Your task to perform on an android device: See recent photos Image 0: 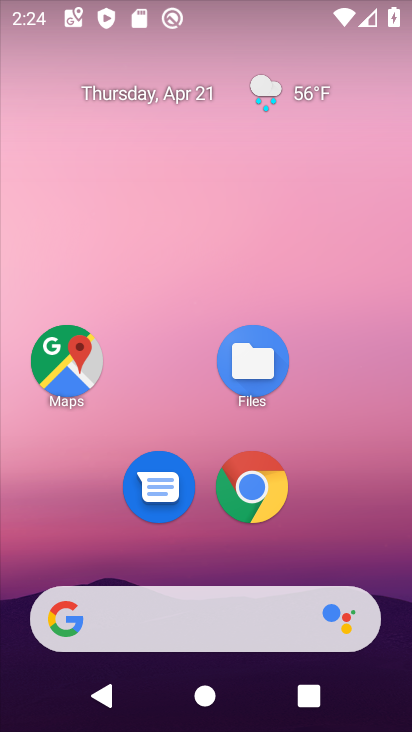
Step 0: drag from (382, 541) to (380, 178)
Your task to perform on an android device: See recent photos Image 1: 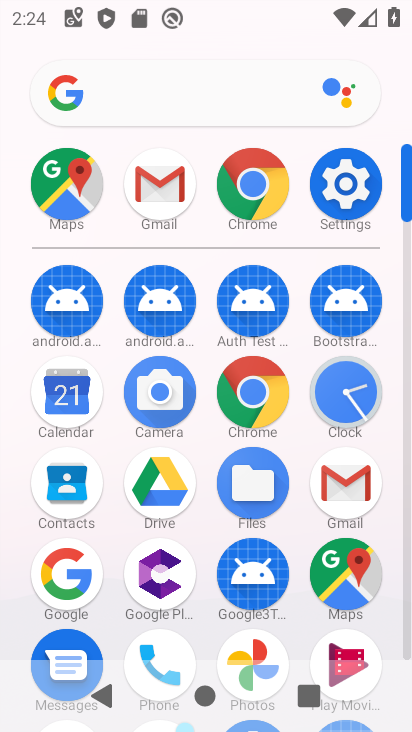
Step 1: drag from (209, 616) to (218, 381)
Your task to perform on an android device: See recent photos Image 2: 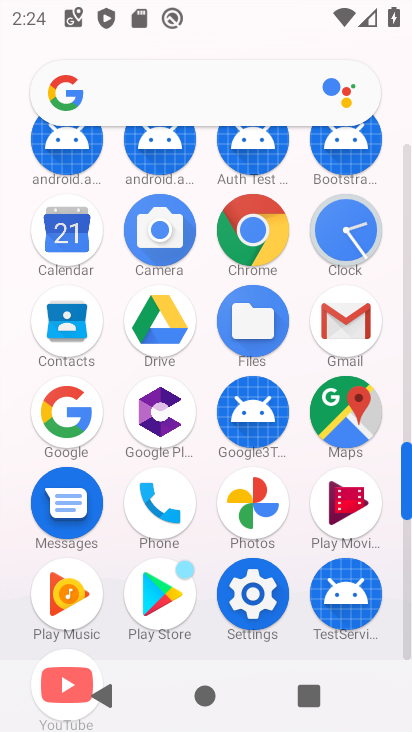
Step 2: click (273, 526)
Your task to perform on an android device: See recent photos Image 3: 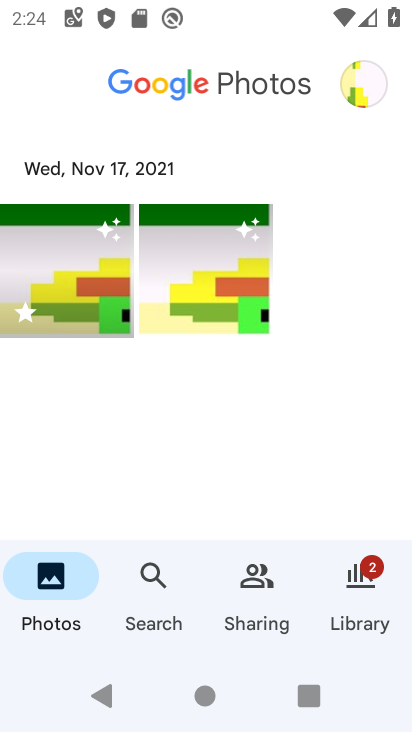
Step 3: task complete